Your task to perform on an android device: Is it going to rain tomorrow? Image 0: 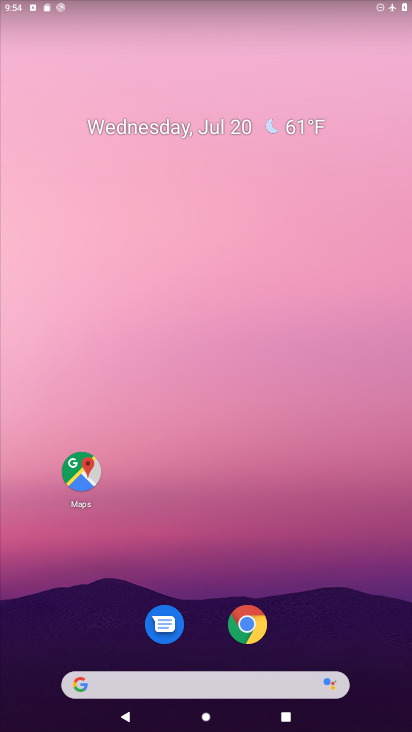
Step 0: drag from (203, 591) to (189, 201)
Your task to perform on an android device: Is it going to rain tomorrow? Image 1: 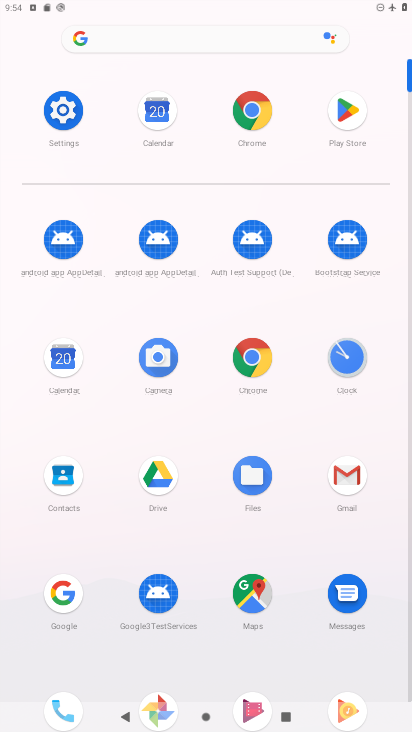
Step 1: click (74, 592)
Your task to perform on an android device: Is it going to rain tomorrow? Image 2: 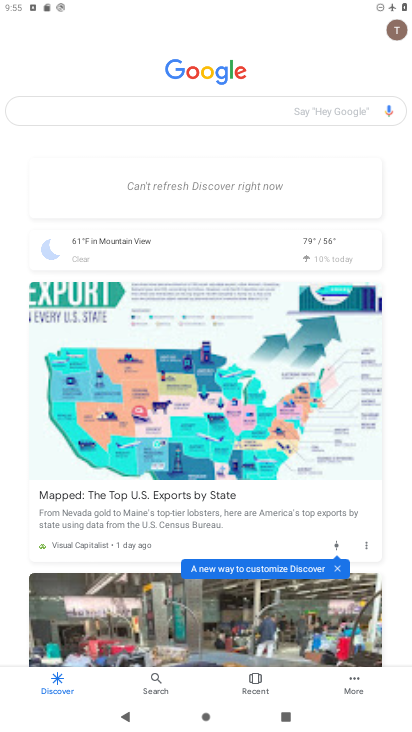
Step 2: click (123, 108)
Your task to perform on an android device: Is it going to rain tomorrow? Image 3: 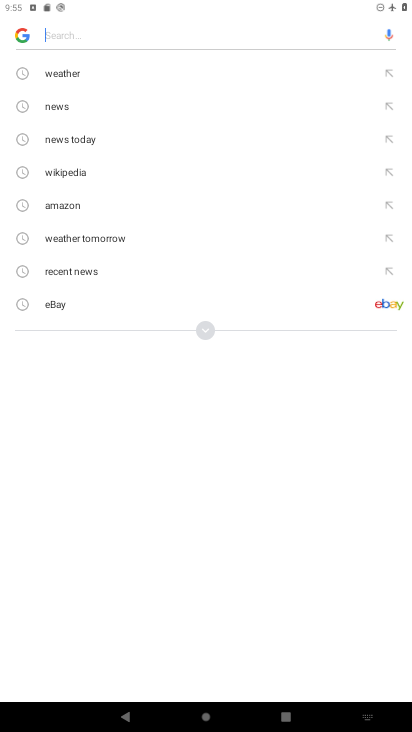
Step 3: click (75, 76)
Your task to perform on an android device: Is it going to rain tomorrow? Image 4: 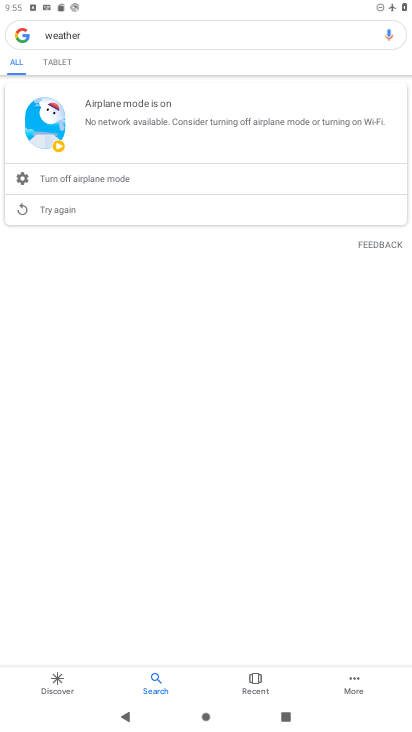
Step 4: task complete